Your task to perform on an android device: change notification settings in the gmail app Image 0: 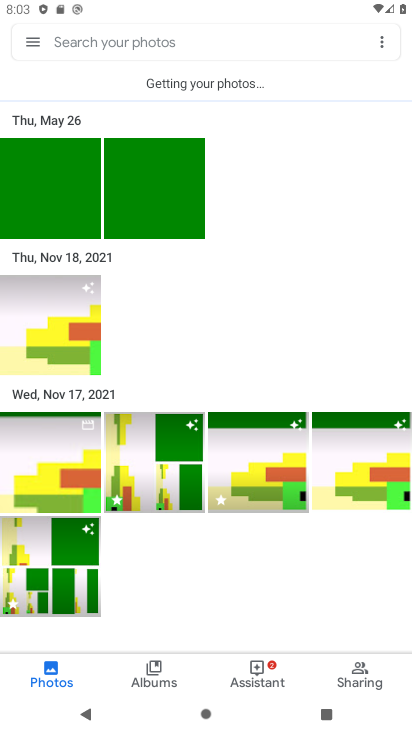
Step 0: press home button
Your task to perform on an android device: change notification settings in the gmail app Image 1: 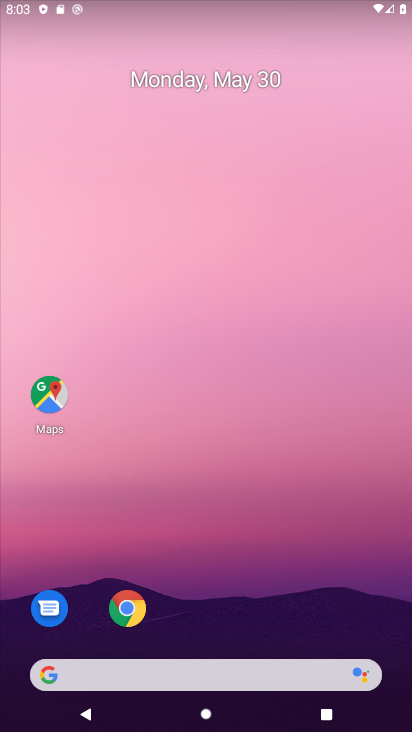
Step 1: drag from (384, 643) to (405, 224)
Your task to perform on an android device: change notification settings in the gmail app Image 2: 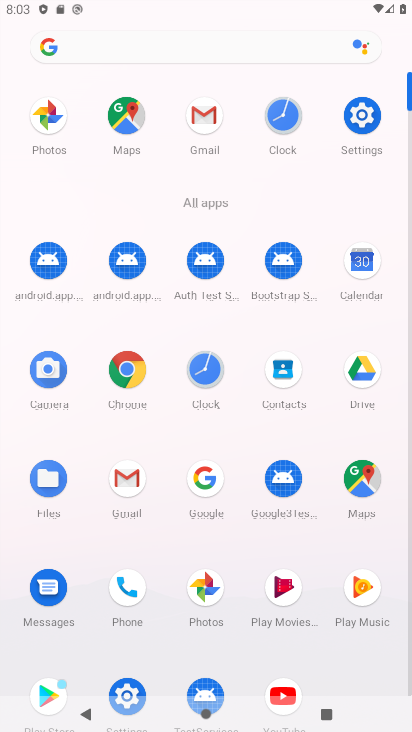
Step 2: click (214, 111)
Your task to perform on an android device: change notification settings in the gmail app Image 3: 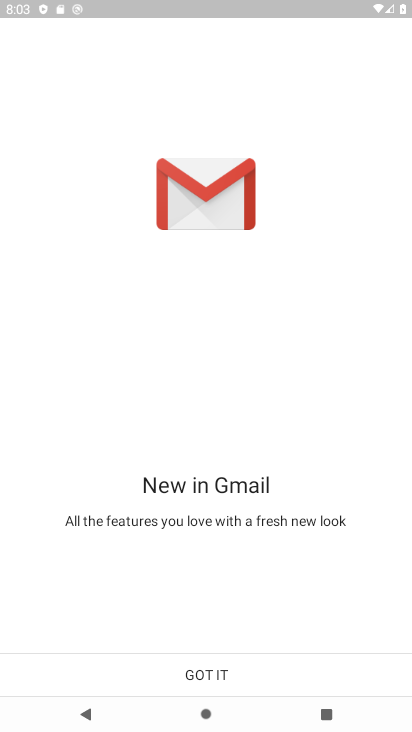
Step 3: click (195, 673)
Your task to perform on an android device: change notification settings in the gmail app Image 4: 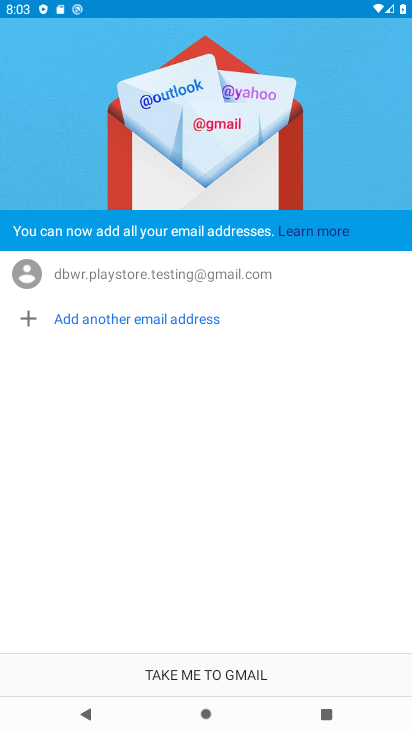
Step 4: click (201, 663)
Your task to perform on an android device: change notification settings in the gmail app Image 5: 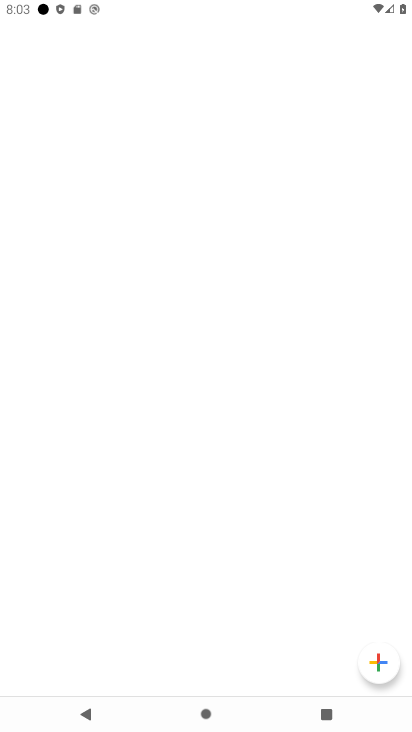
Step 5: click (202, 671)
Your task to perform on an android device: change notification settings in the gmail app Image 6: 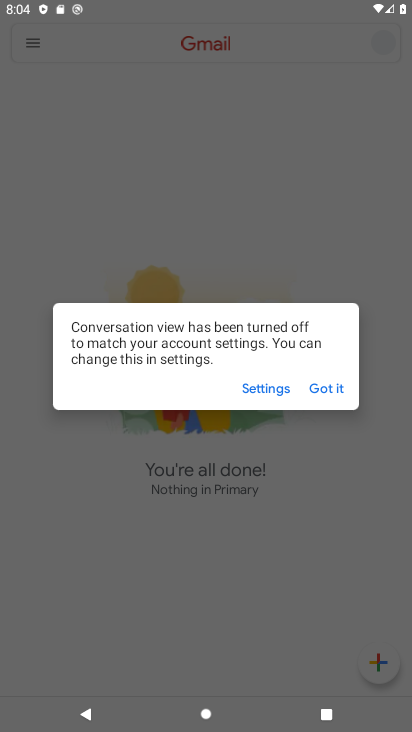
Step 6: click (334, 388)
Your task to perform on an android device: change notification settings in the gmail app Image 7: 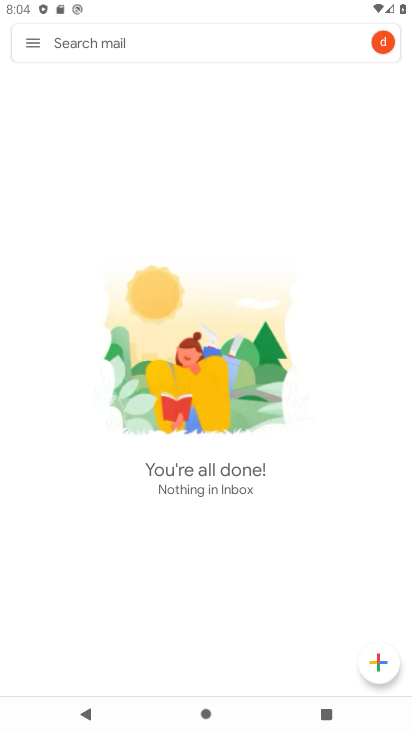
Step 7: click (38, 42)
Your task to perform on an android device: change notification settings in the gmail app Image 8: 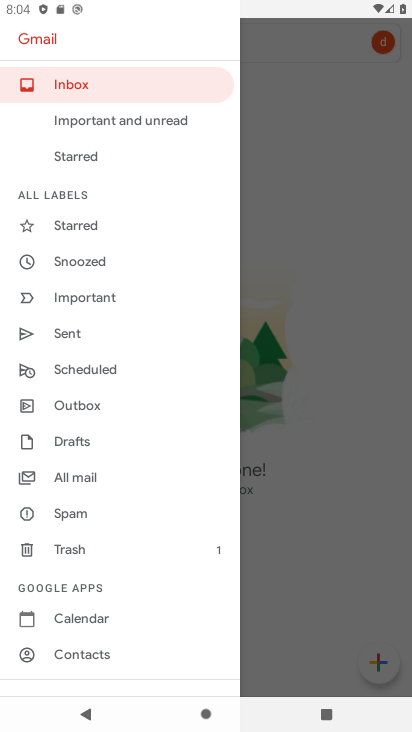
Step 8: drag from (167, 640) to (227, 405)
Your task to perform on an android device: change notification settings in the gmail app Image 9: 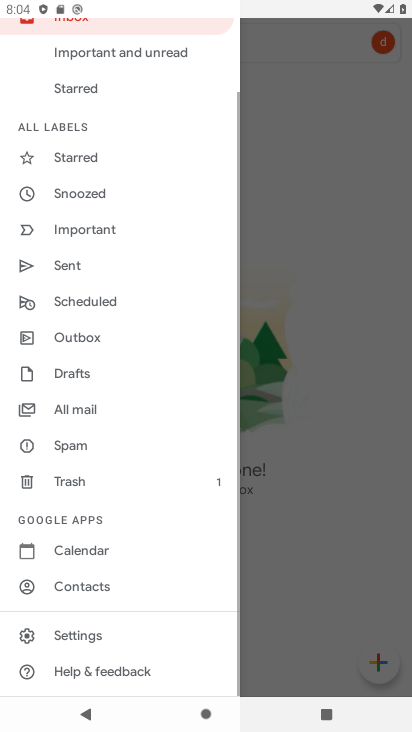
Step 9: click (66, 637)
Your task to perform on an android device: change notification settings in the gmail app Image 10: 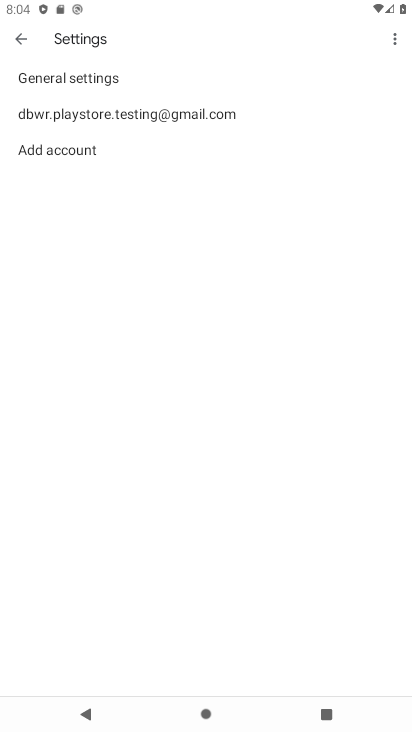
Step 10: click (56, 77)
Your task to perform on an android device: change notification settings in the gmail app Image 11: 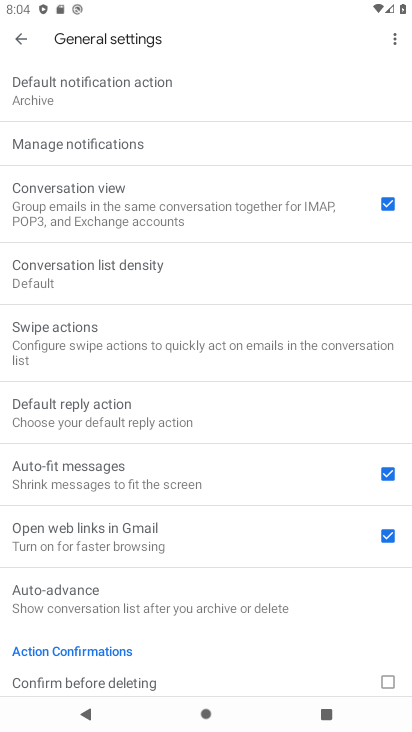
Step 11: click (105, 138)
Your task to perform on an android device: change notification settings in the gmail app Image 12: 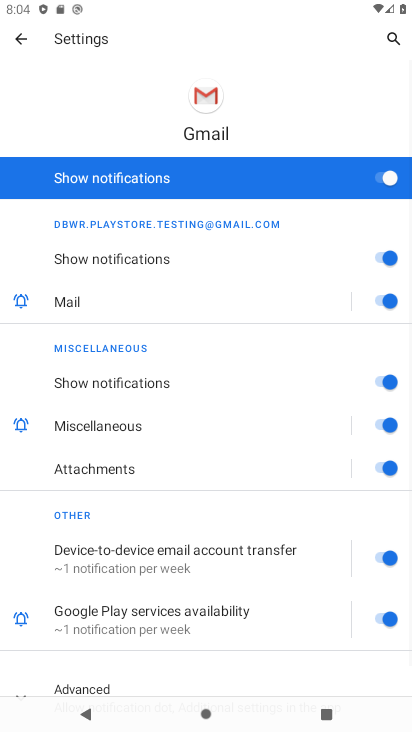
Step 12: click (375, 184)
Your task to perform on an android device: change notification settings in the gmail app Image 13: 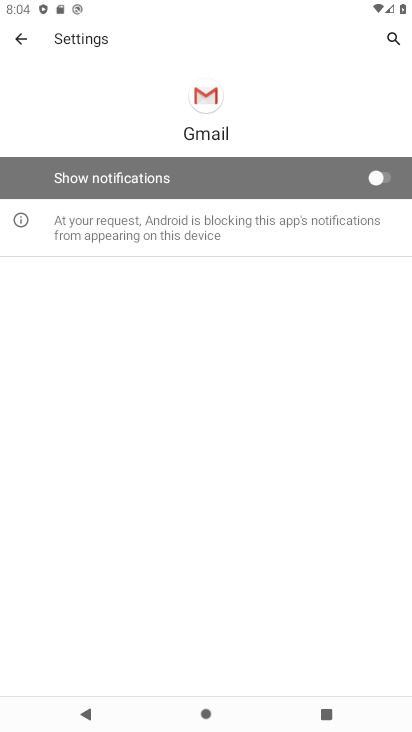
Step 13: task complete